Your task to perform on an android device: Open Reddit.com Image 0: 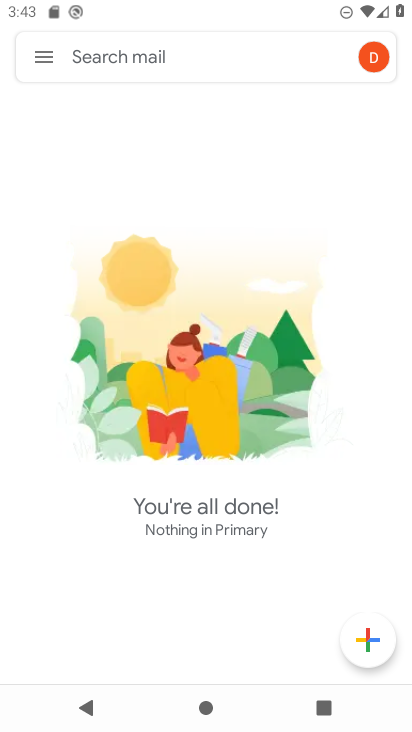
Step 0: press home button
Your task to perform on an android device: Open Reddit.com Image 1: 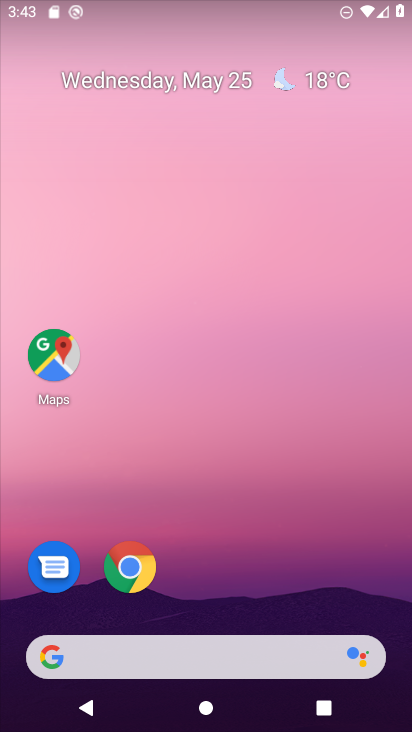
Step 1: drag from (368, 588) to (385, 186)
Your task to perform on an android device: Open Reddit.com Image 2: 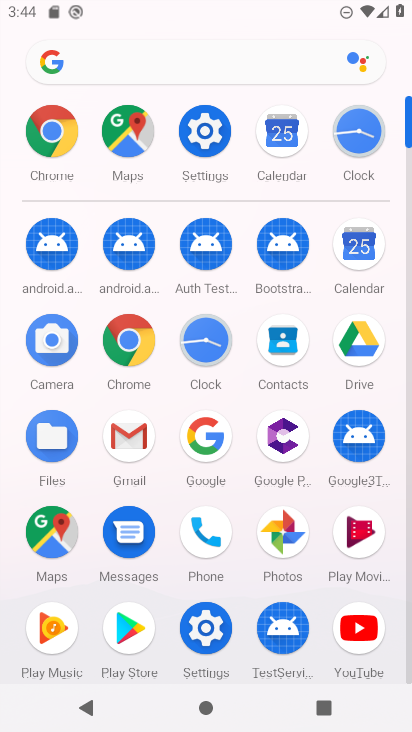
Step 2: click (131, 347)
Your task to perform on an android device: Open Reddit.com Image 3: 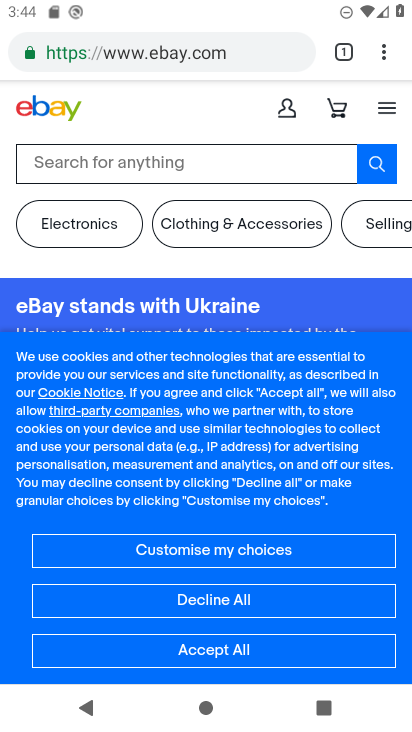
Step 3: press back button
Your task to perform on an android device: Open Reddit.com Image 4: 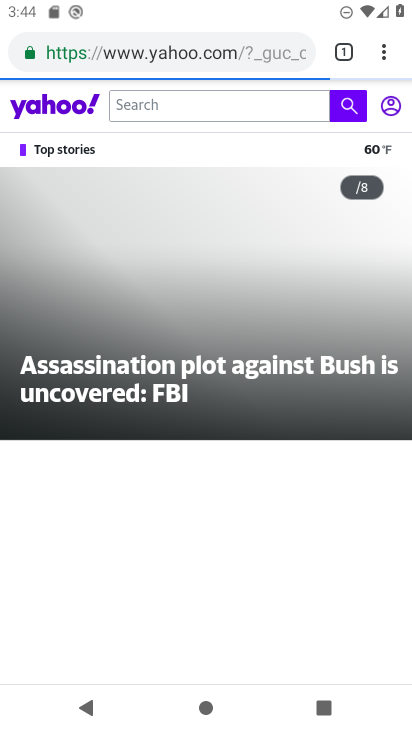
Step 4: press back button
Your task to perform on an android device: Open Reddit.com Image 5: 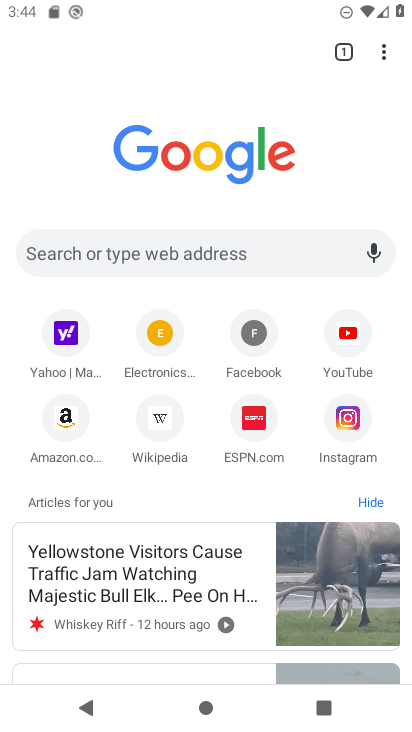
Step 5: click (293, 261)
Your task to perform on an android device: Open Reddit.com Image 6: 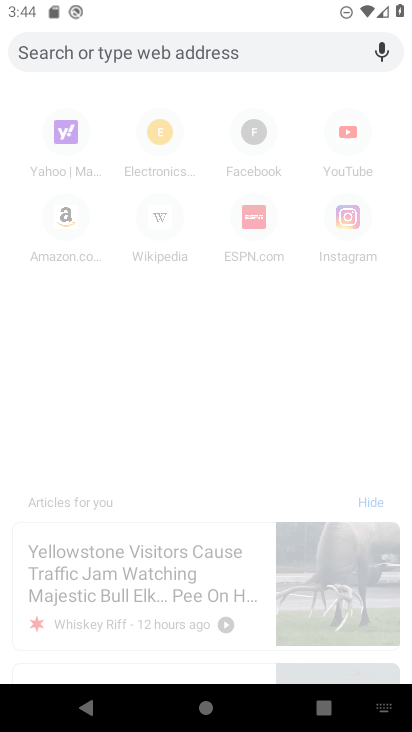
Step 6: type "reddit.com"
Your task to perform on an android device: Open Reddit.com Image 7: 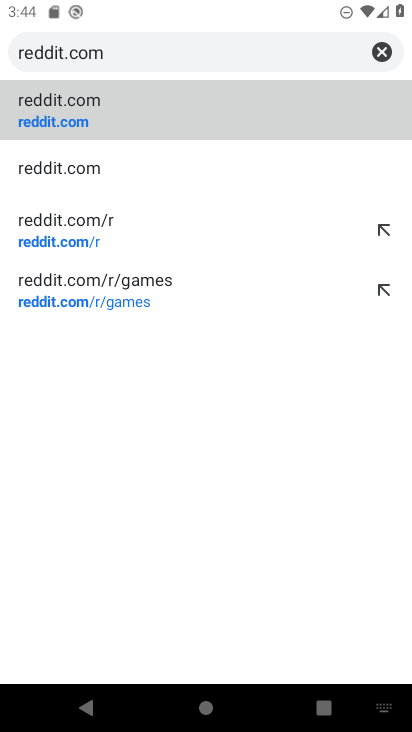
Step 7: click (104, 171)
Your task to perform on an android device: Open Reddit.com Image 8: 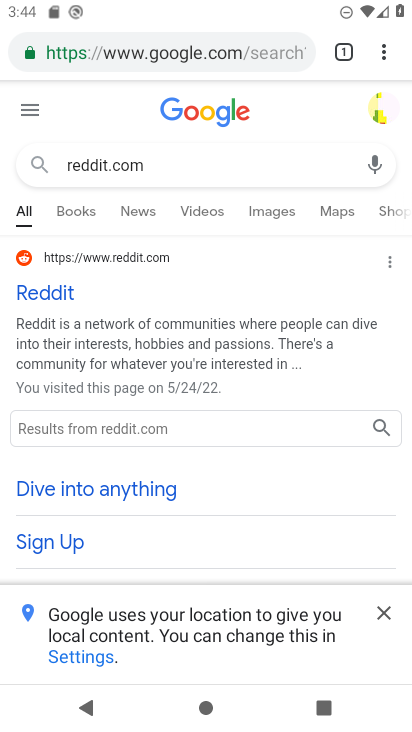
Step 8: task complete